Your task to perform on an android device: change text size in settings app Image 0: 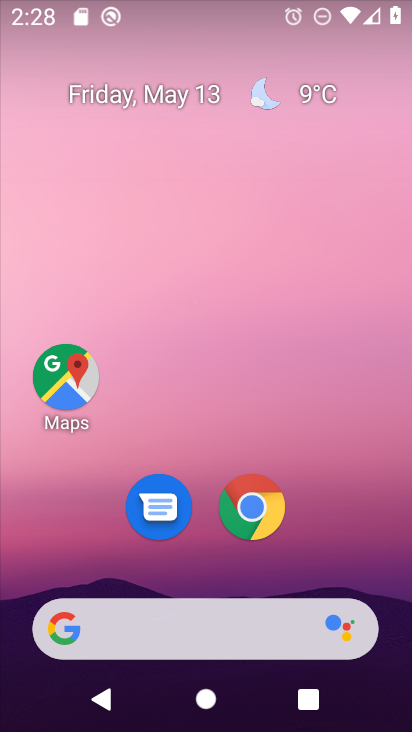
Step 0: drag from (389, 529) to (395, 50)
Your task to perform on an android device: change text size in settings app Image 1: 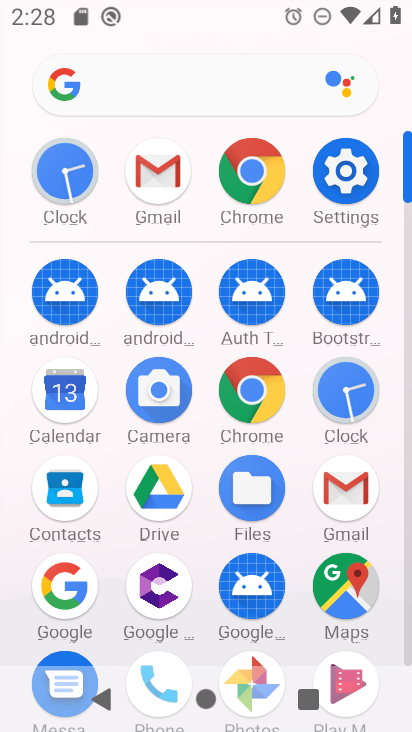
Step 1: click (328, 170)
Your task to perform on an android device: change text size in settings app Image 2: 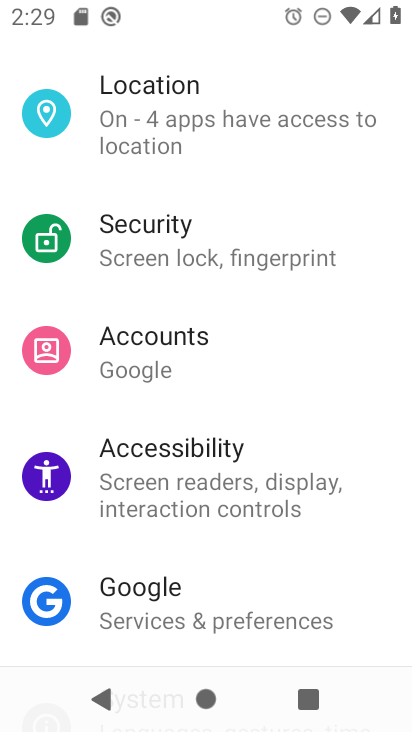
Step 2: drag from (324, 162) to (371, 539)
Your task to perform on an android device: change text size in settings app Image 3: 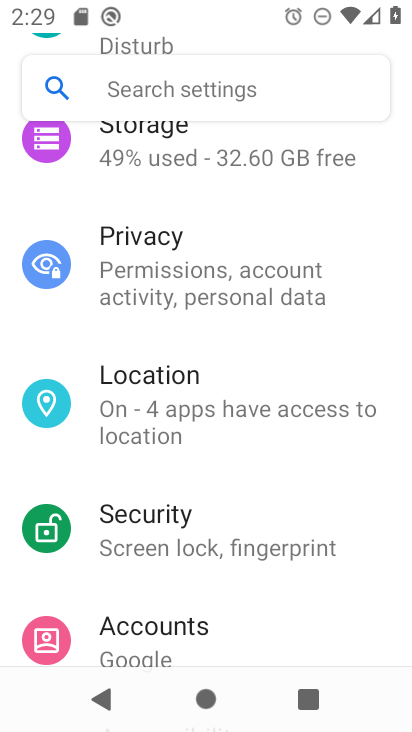
Step 3: drag from (291, 183) to (271, 568)
Your task to perform on an android device: change text size in settings app Image 4: 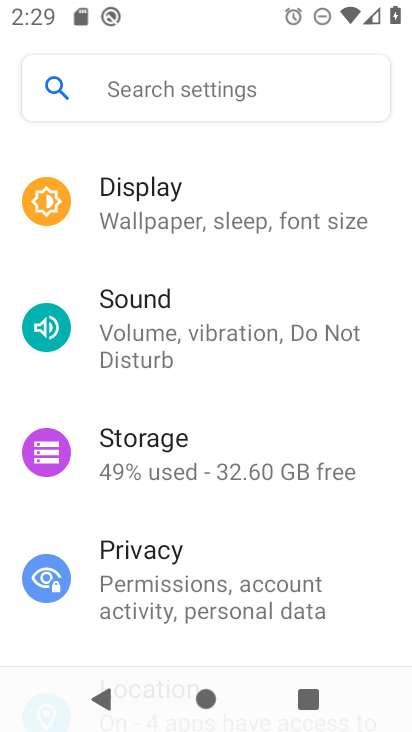
Step 4: click (250, 230)
Your task to perform on an android device: change text size in settings app Image 5: 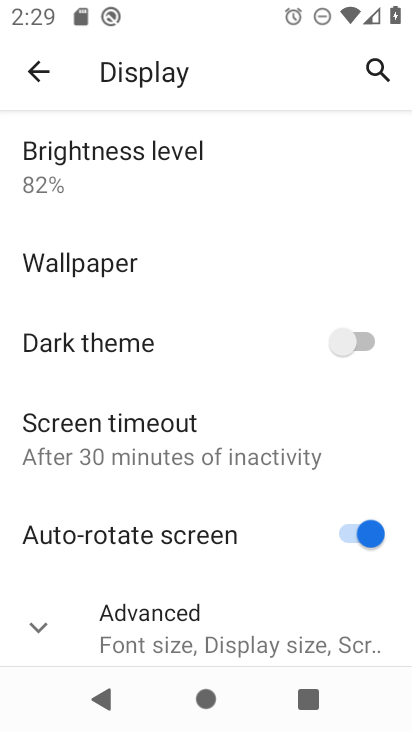
Step 5: drag from (289, 592) to (249, 300)
Your task to perform on an android device: change text size in settings app Image 6: 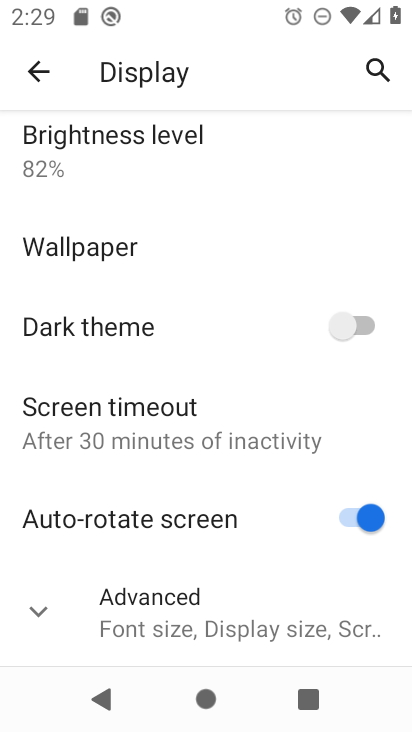
Step 6: click (199, 628)
Your task to perform on an android device: change text size in settings app Image 7: 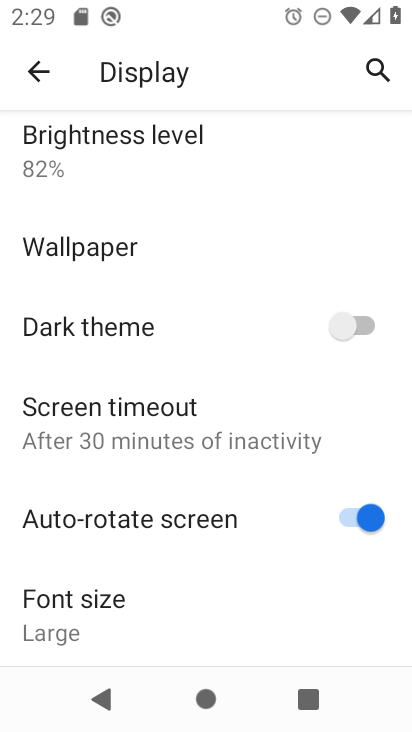
Step 7: click (144, 605)
Your task to perform on an android device: change text size in settings app Image 8: 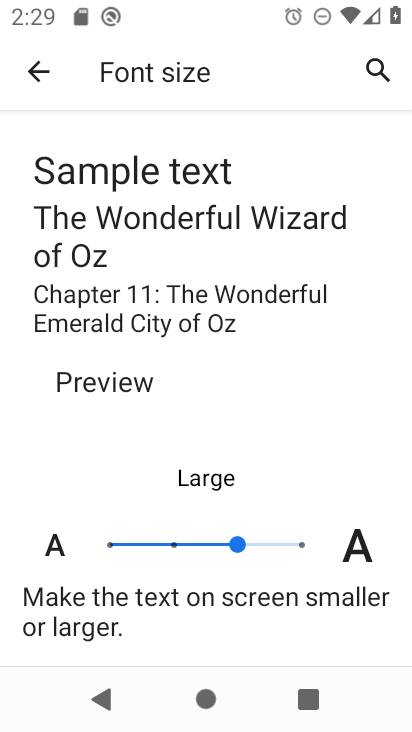
Step 8: click (197, 535)
Your task to perform on an android device: change text size in settings app Image 9: 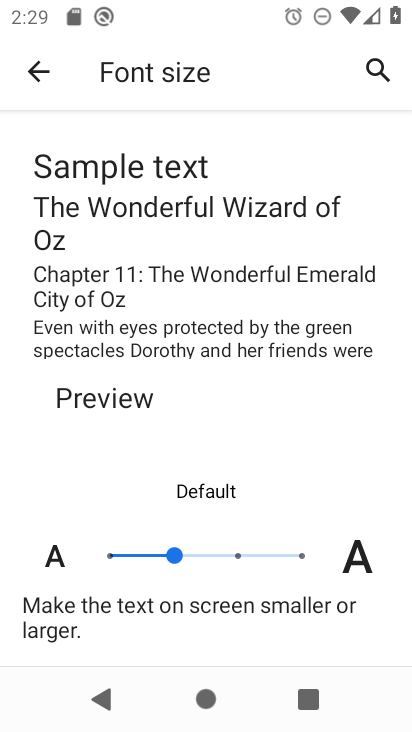
Step 9: task complete